Your task to perform on an android device: Show me productivity apps on the Play Store Image 0: 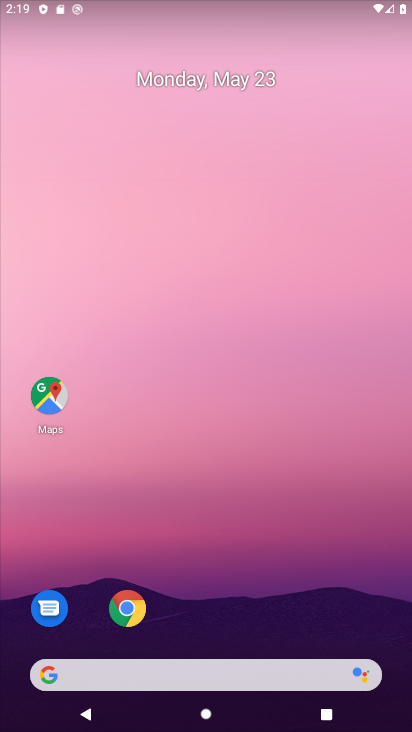
Step 0: drag from (267, 565) to (293, 238)
Your task to perform on an android device: Show me productivity apps on the Play Store Image 1: 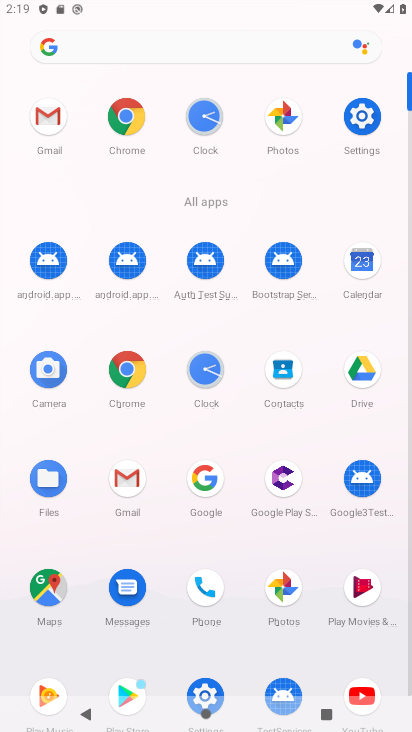
Step 1: click (130, 688)
Your task to perform on an android device: Show me productivity apps on the Play Store Image 2: 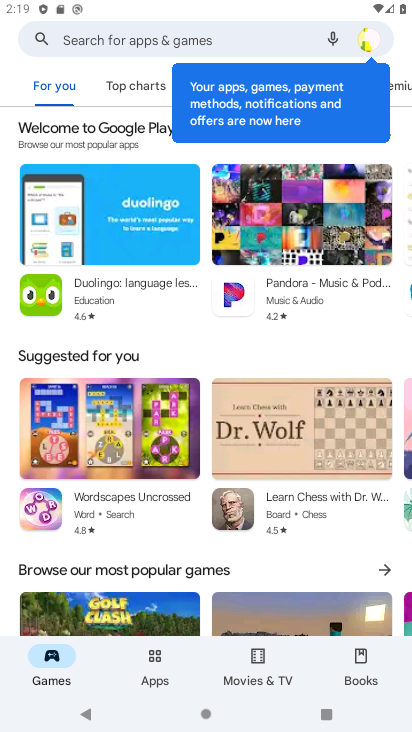
Step 2: click (157, 662)
Your task to perform on an android device: Show me productivity apps on the Play Store Image 3: 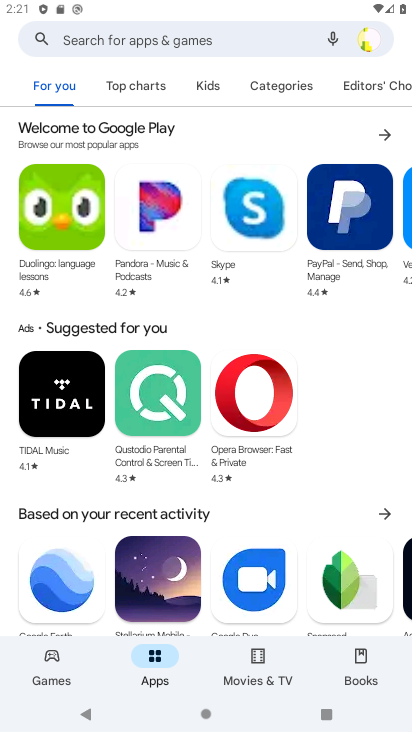
Step 3: task complete